Your task to perform on an android device: Turn off the flashlight Image 0: 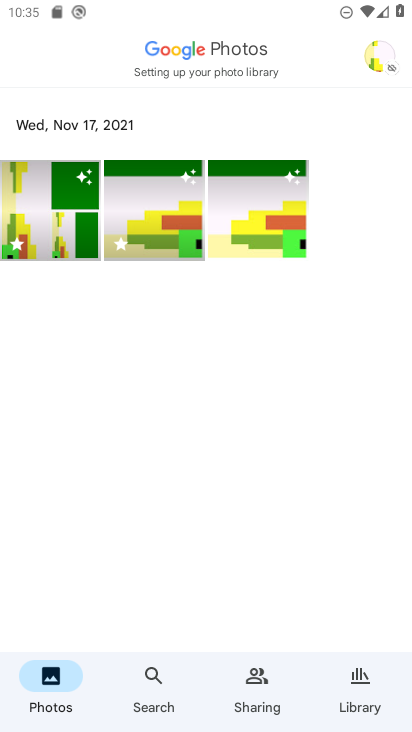
Step 0: press home button
Your task to perform on an android device: Turn off the flashlight Image 1: 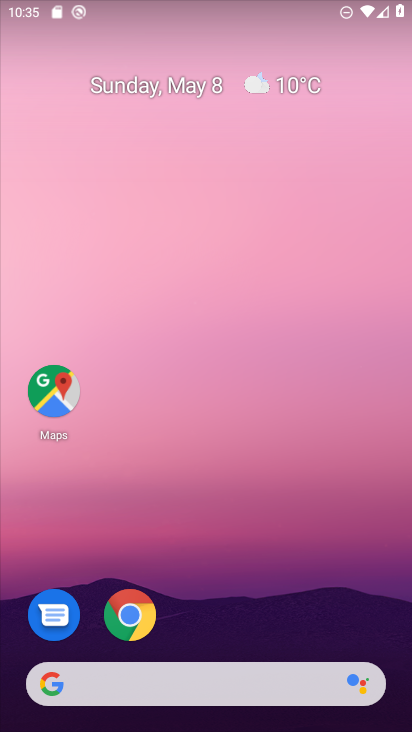
Step 1: drag from (289, 594) to (270, 96)
Your task to perform on an android device: Turn off the flashlight Image 2: 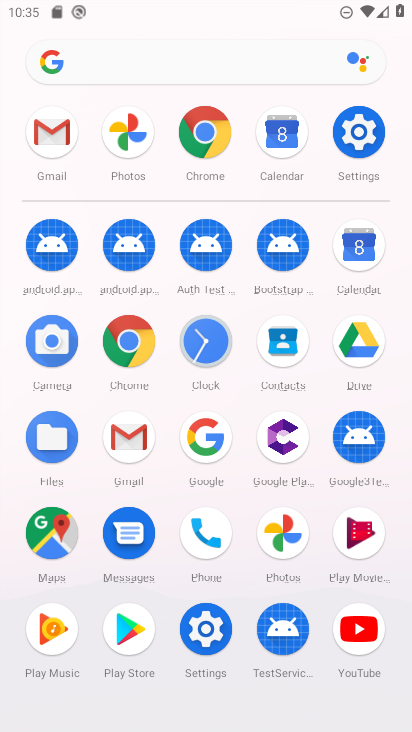
Step 2: click (360, 142)
Your task to perform on an android device: Turn off the flashlight Image 3: 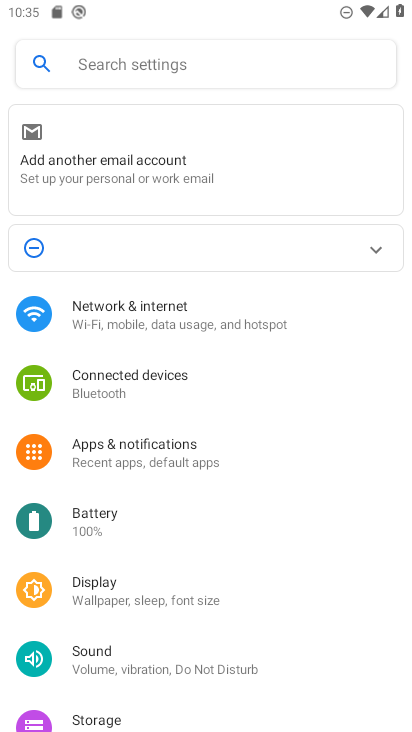
Step 3: click (171, 595)
Your task to perform on an android device: Turn off the flashlight Image 4: 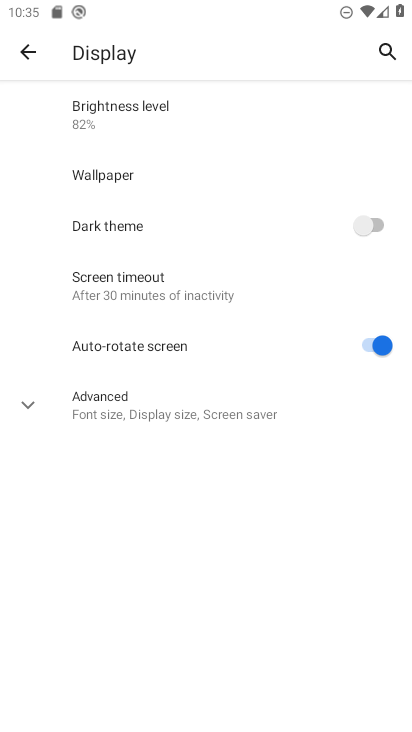
Step 4: task complete